Your task to perform on an android device: delete browsing data in the chrome app Image 0: 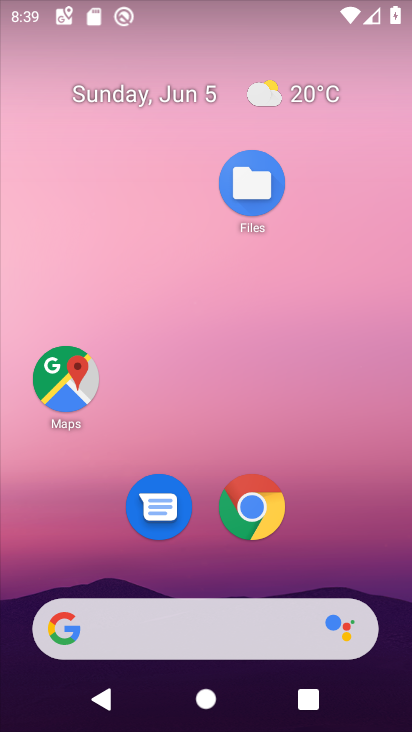
Step 0: click (219, 512)
Your task to perform on an android device: delete browsing data in the chrome app Image 1: 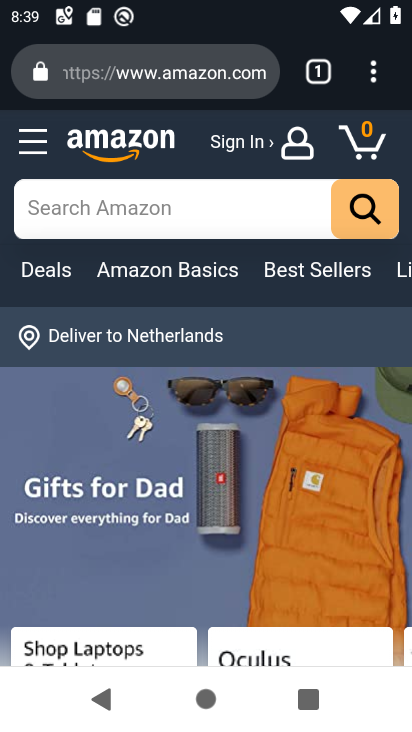
Step 1: click (367, 85)
Your task to perform on an android device: delete browsing data in the chrome app Image 2: 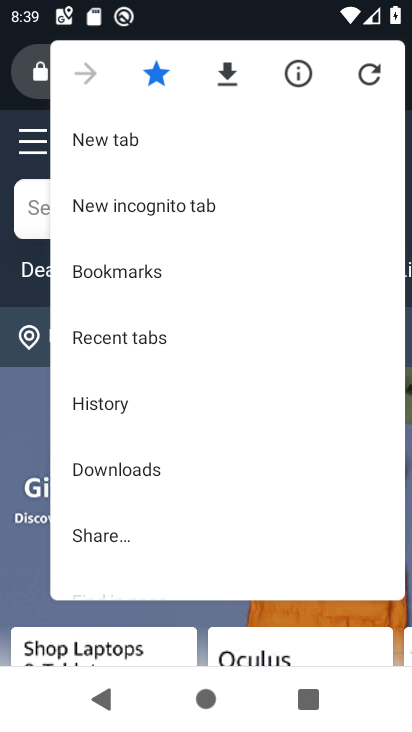
Step 2: click (137, 400)
Your task to perform on an android device: delete browsing data in the chrome app Image 3: 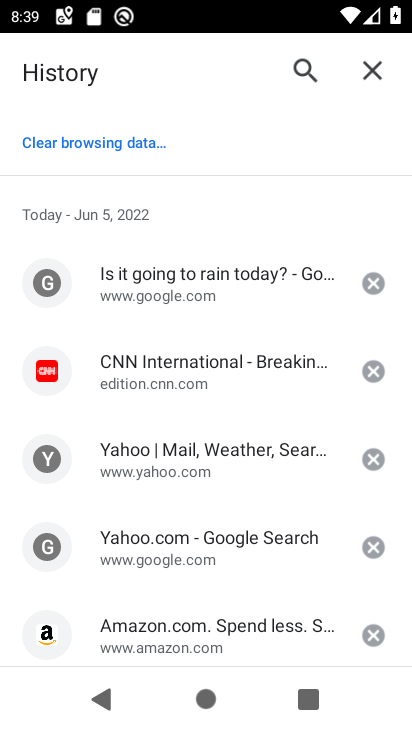
Step 3: click (110, 148)
Your task to perform on an android device: delete browsing data in the chrome app Image 4: 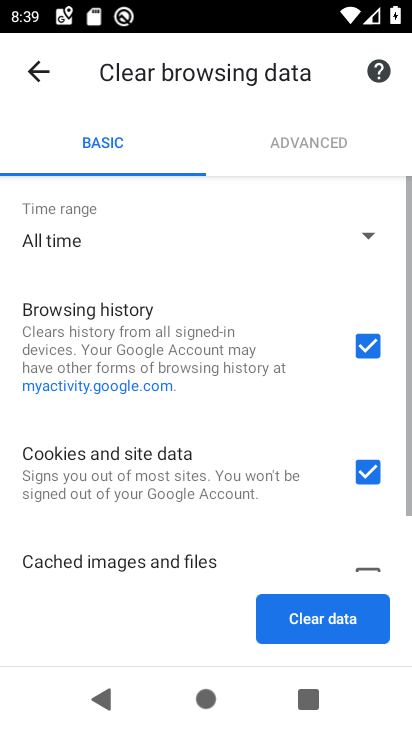
Step 4: click (279, 600)
Your task to perform on an android device: delete browsing data in the chrome app Image 5: 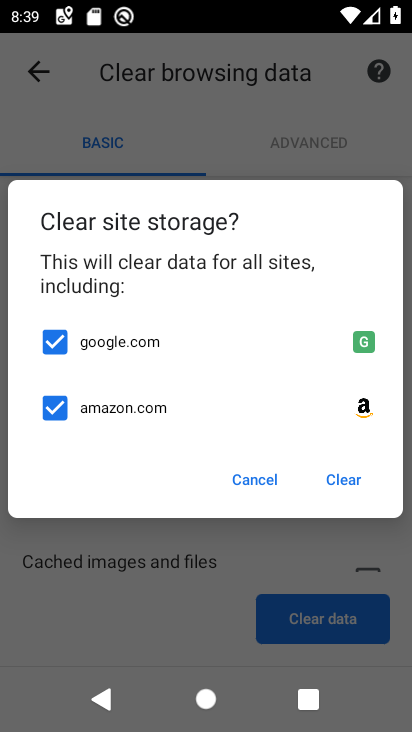
Step 5: click (353, 483)
Your task to perform on an android device: delete browsing data in the chrome app Image 6: 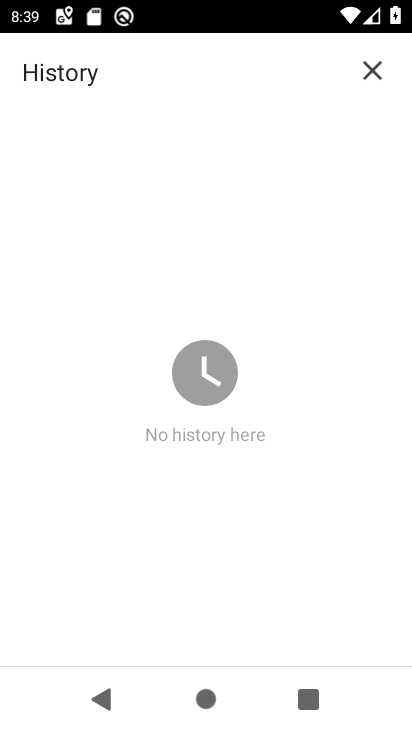
Step 6: task complete